Your task to perform on an android device: Find coffee shops on Maps Image 0: 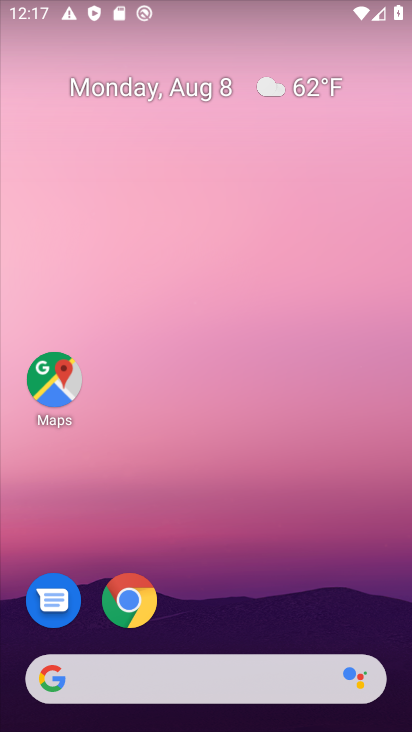
Step 0: click (60, 394)
Your task to perform on an android device: Find coffee shops on Maps Image 1: 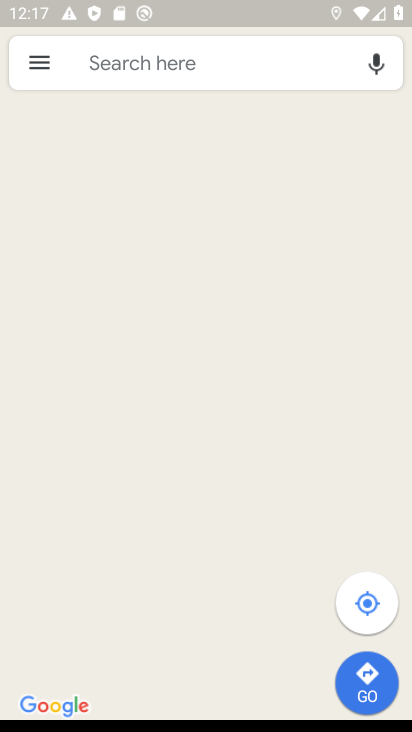
Step 1: click (203, 76)
Your task to perform on an android device: Find coffee shops on Maps Image 2: 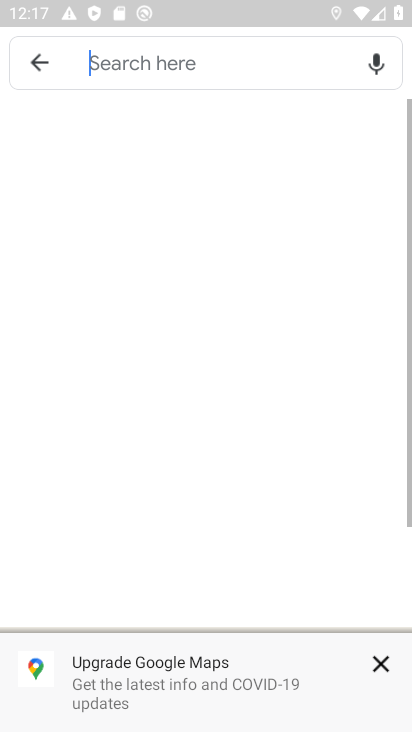
Step 2: click (117, 59)
Your task to perform on an android device: Find coffee shops on Maps Image 3: 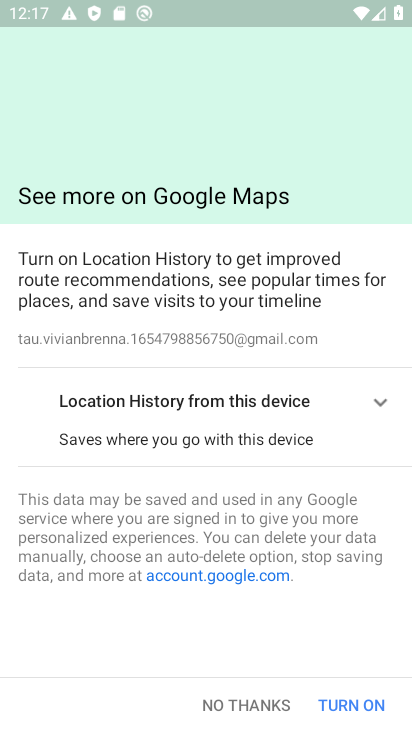
Step 3: type "coffee shops"
Your task to perform on an android device: Find coffee shops on Maps Image 4: 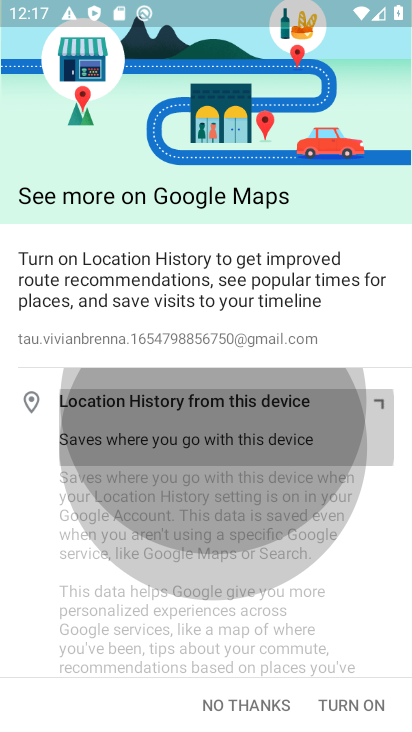
Step 4: type ""
Your task to perform on an android device: Find coffee shops on Maps Image 5: 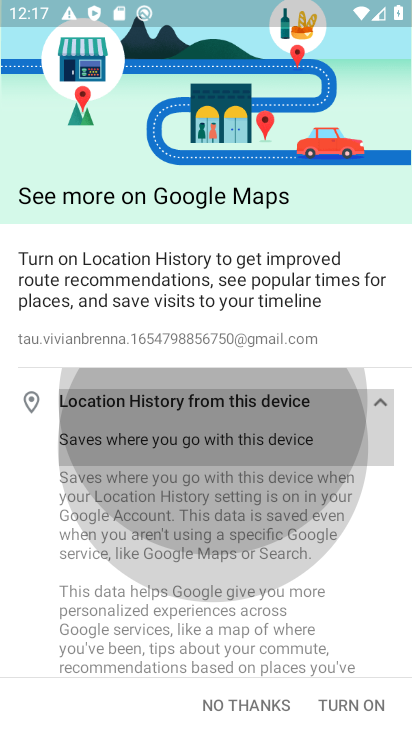
Step 5: click (370, 700)
Your task to perform on an android device: Find coffee shops on Maps Image 6: 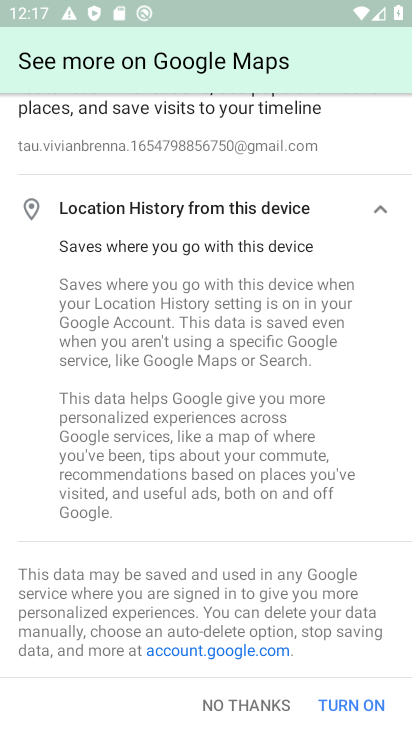
Step 6: click (370, 700)
Your task to perform on an android device: Find coffee shops on Maps Image 7: 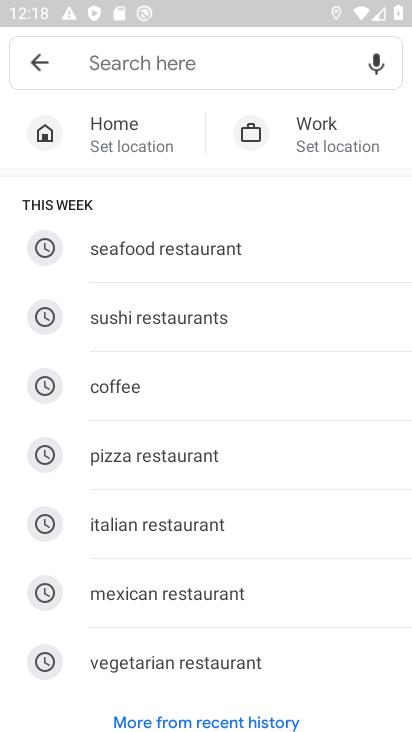
Step 7: click (170, 61)
Your task to perform on an android device: Find coffee shops on Maps Image 8: 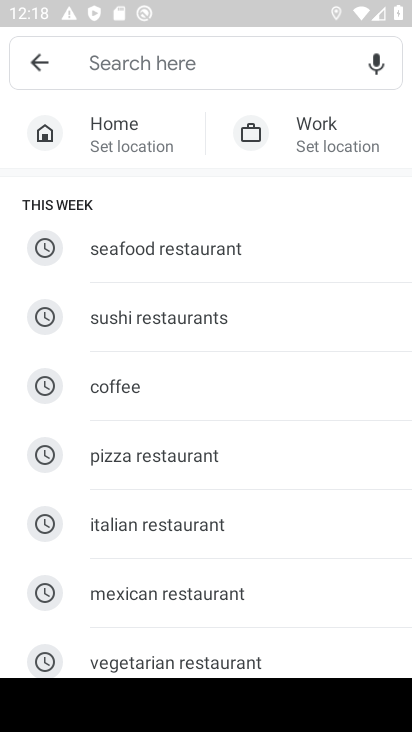
Step 8: type "coffee shops"
Your task to perform on an android device: Find coffee shops on Maps Image 9: 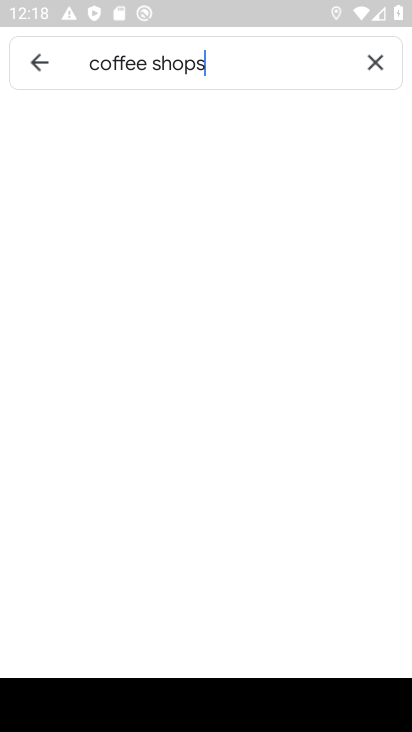
Step 9: type ""
Your task to perform on an android device: Find coffee shops on Maps Image 10: 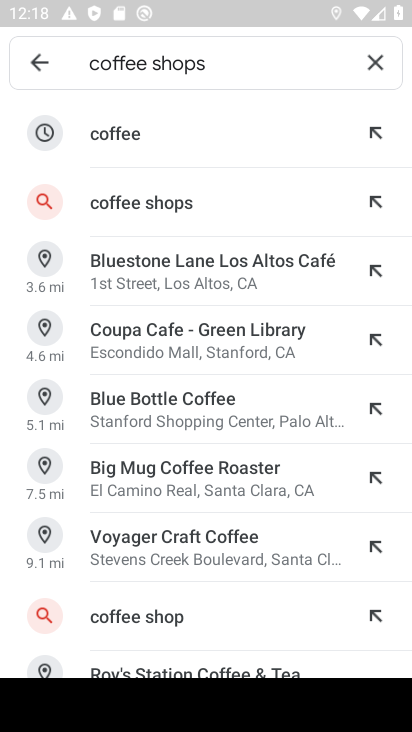
Step 10: click (218, 208)
Your task to perform on an android device: Find coffee shops on Maps Image 11: 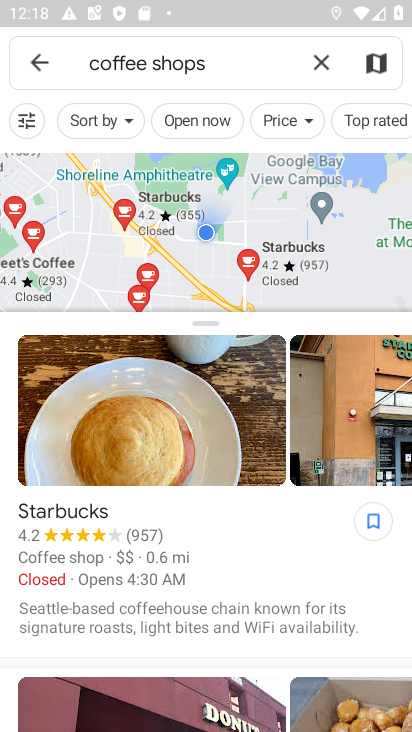
Step 11: task complete